Your task to perform on an android device: Go to accessibility settings Image 0: 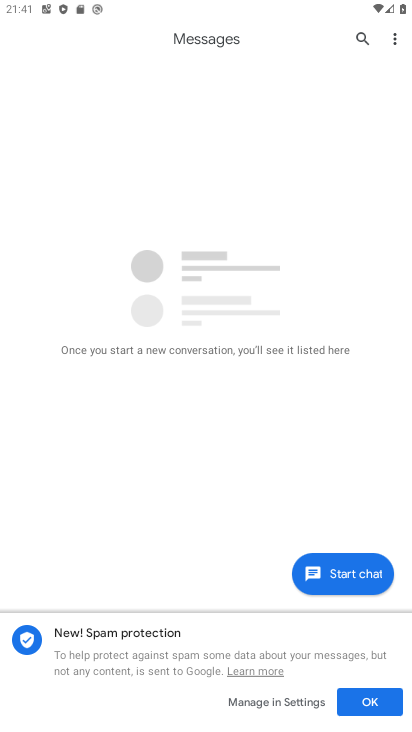
Step 0: press home button
Your task to perform on an android device: Go to accessibility settings Image 1: 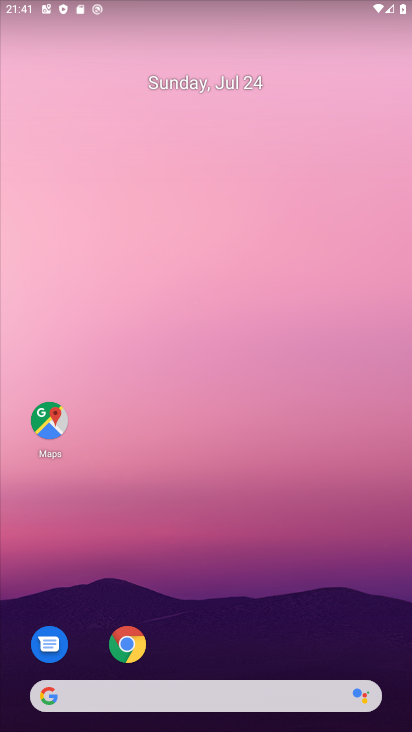
Step 1: drag from (401, 638) to (295, 62)
Your task to perform on an android device: Go to accessibility settings Image 2: 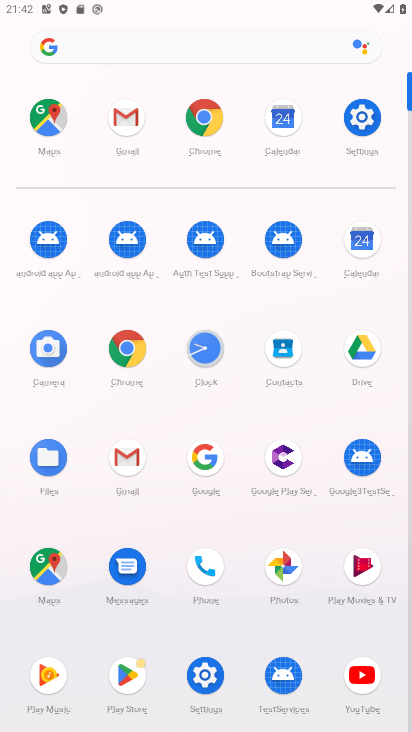
Step 2: click (203, 673)
Your task to perform on an android device: Go to accessibility settings Image 3: 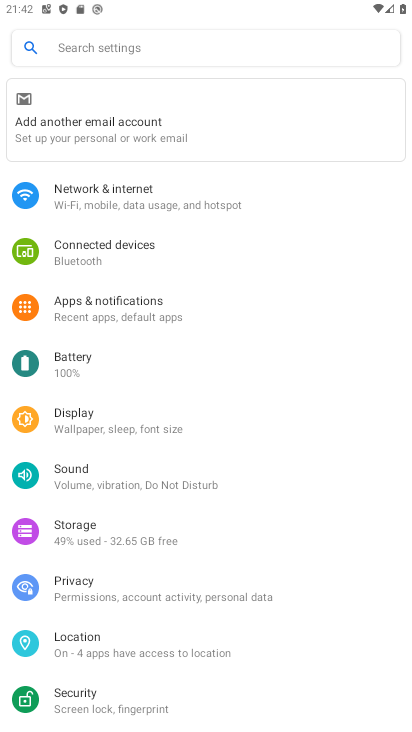
Step 3: drag from (290, 675) to (281, 331)
Your task to perform on an android device: Go to accessibility settings Image 4: 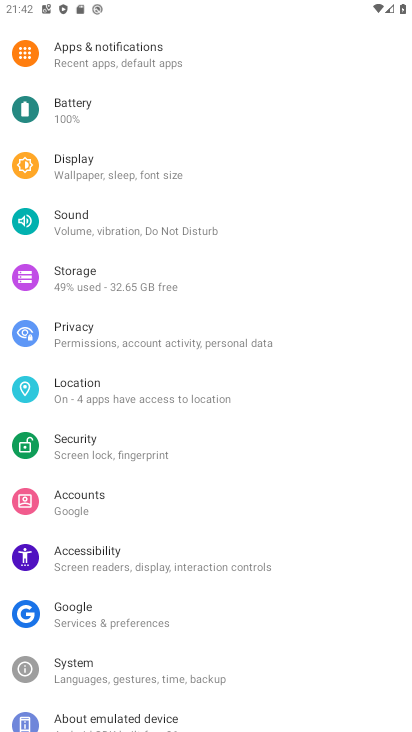
Step 4: click (96, 555)
Your task to perform on an android device: Go to accessibility settings Image 5: 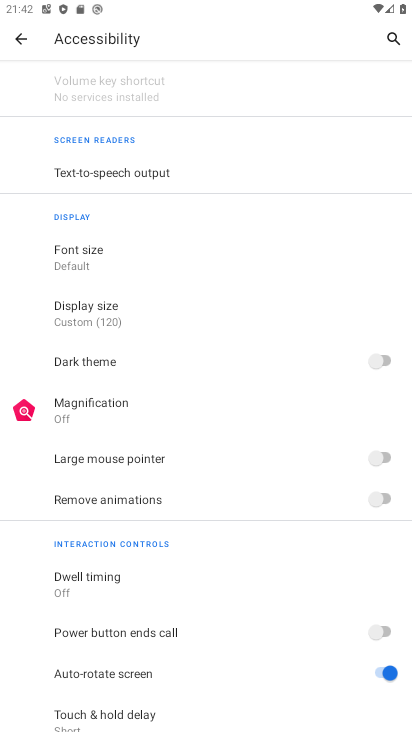
Step 5: task complete